Your task to perform on an android device: turn off wifi Image 0: 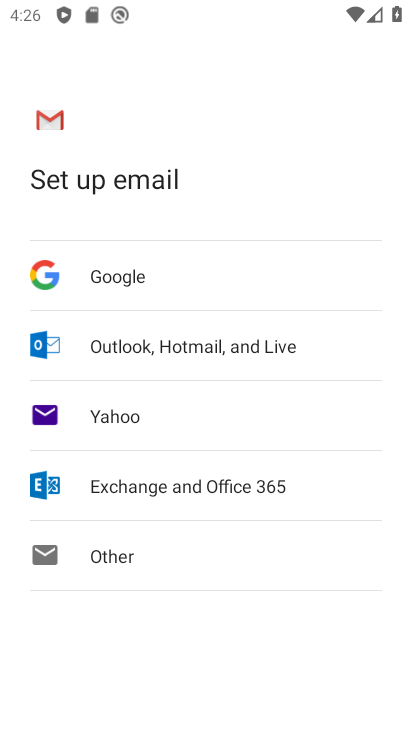
Step 0: press home button
Your task to perform on an android device: turn off wifi Image 1: 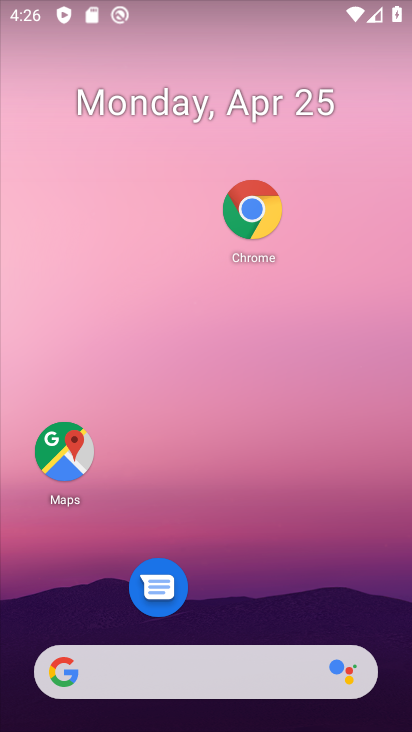
Step 1: drag from (354, 573) to (323, 128)
Your task to perform on an android device: turn off wifi Image 2: 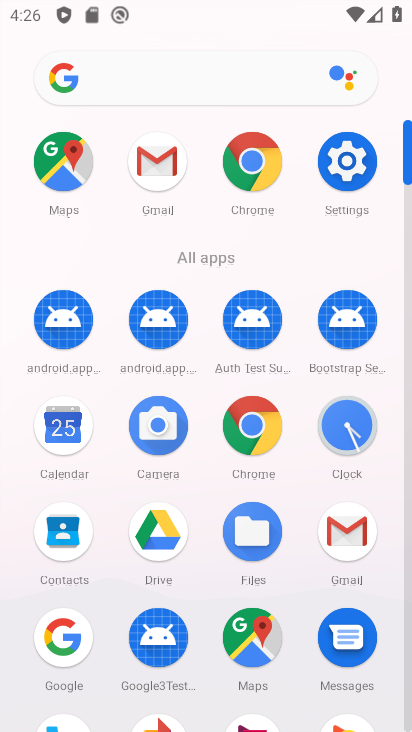
Step 2: click (352, 174)
Your task to perform on an android device: turn off wifi Image 3: 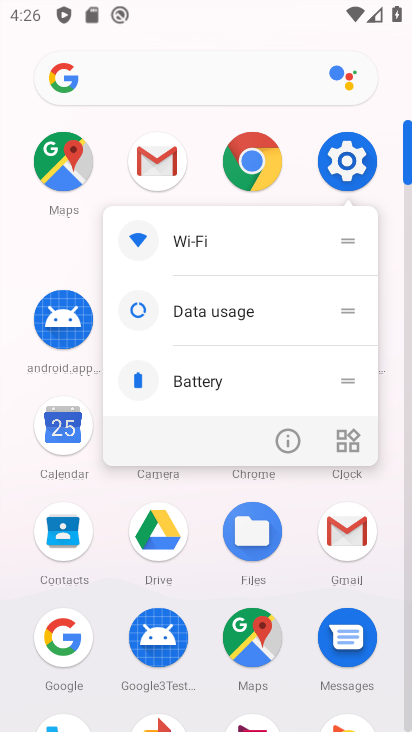
Step 3: click (348, 181)
Your task to perform on an android device: turn off wifi Image 4: 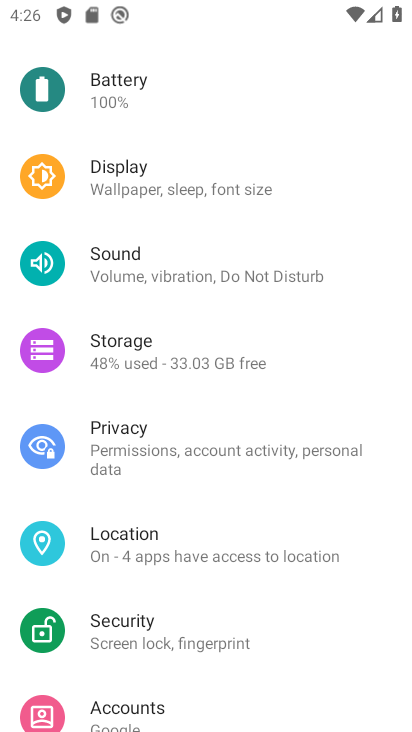
Step 4: drag from (278, 126) to (284, 708)
Your task to perform on an android device: turn off wifi Image 5: 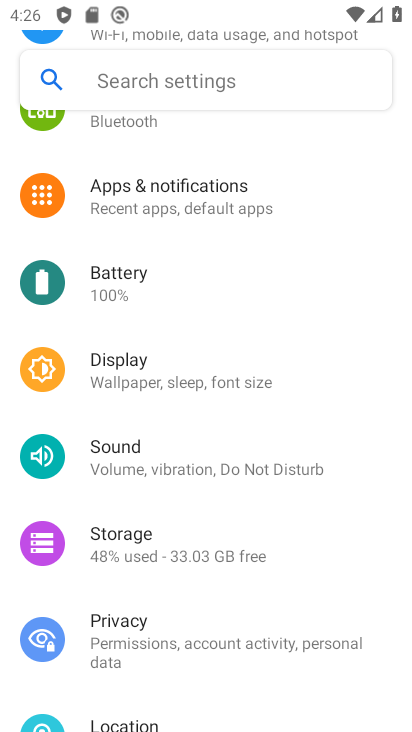
Step 5: drag from (241, 249) to (268, 702)
Your task to perform on an android device: turn off wifi Image 6: 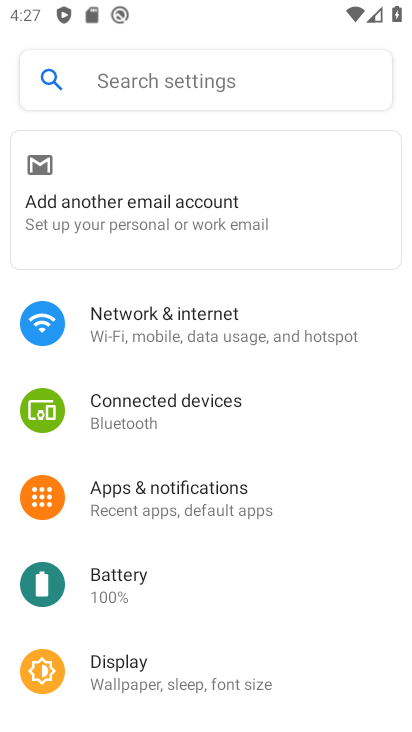
Step 6: click (212, 345)
Your task to perform on an android device: turn off wifi Image 7: 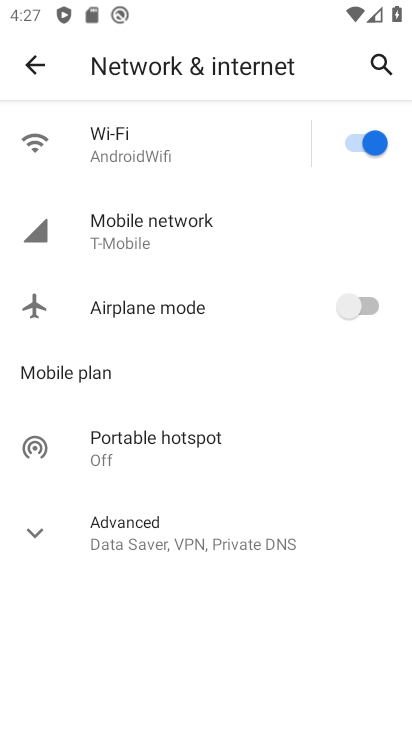
Step 7: click (365, 130)
Your task to perform on an android device: turn off wifi Image 8: 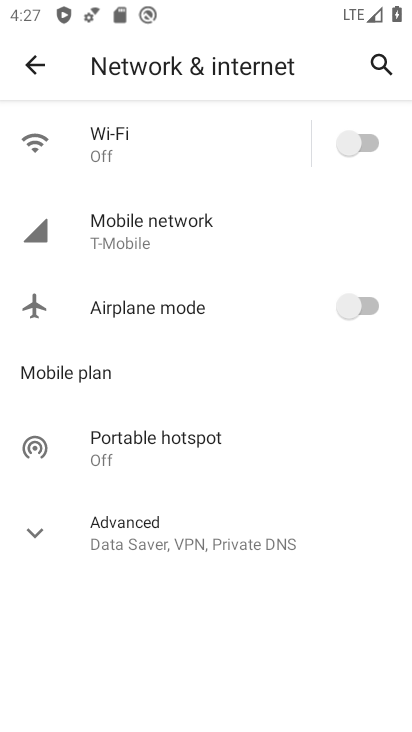
Step 8: task complete